Your task to perform on an android device: Is it going to rain today? Image 0: 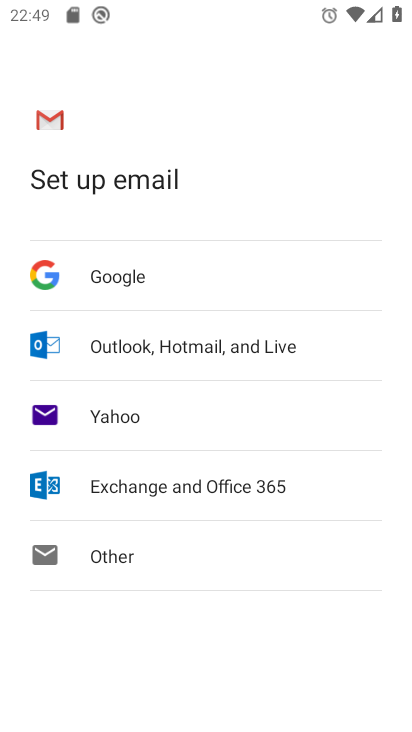
Step 0: press home button
Your task to perform on an android device: Is it going to rain today? Image 1: 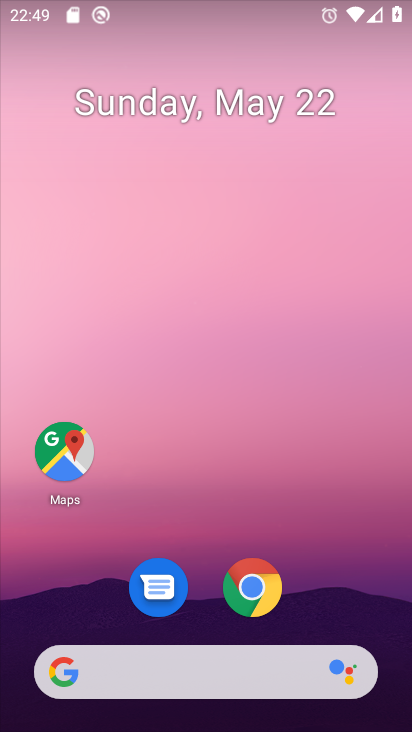
Step 1: click (208, 671)
Your task to perform on an android device: Is it going to rain today? Image 2: 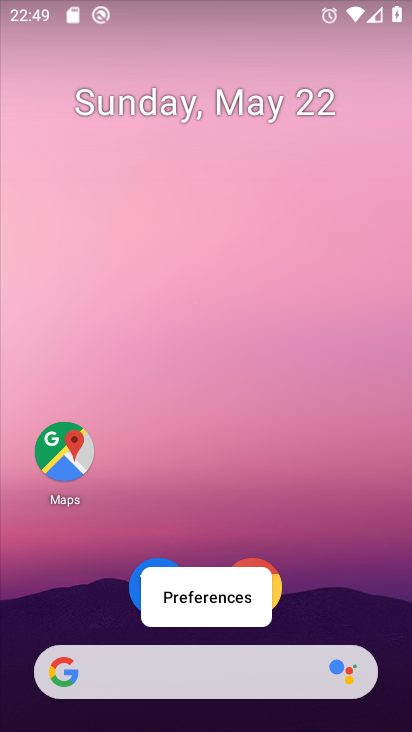
Step 2: click (182, 679)
Your task to perform on an android device: Is it going to rain today? Image 3: 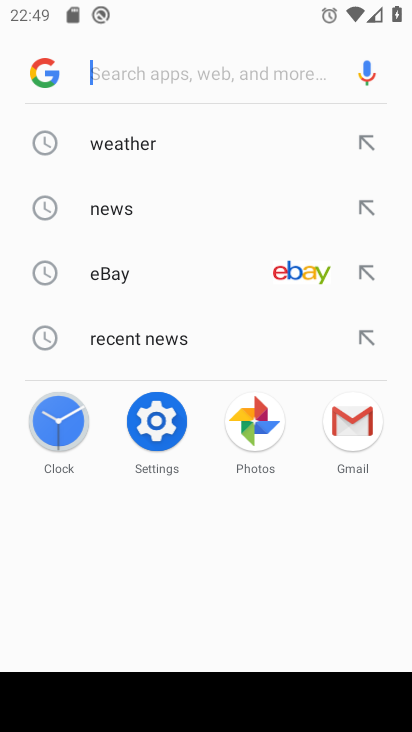
Step 3: click (106, 145)
Your task to perform on an android device: Is it going to rain today? Image 4: 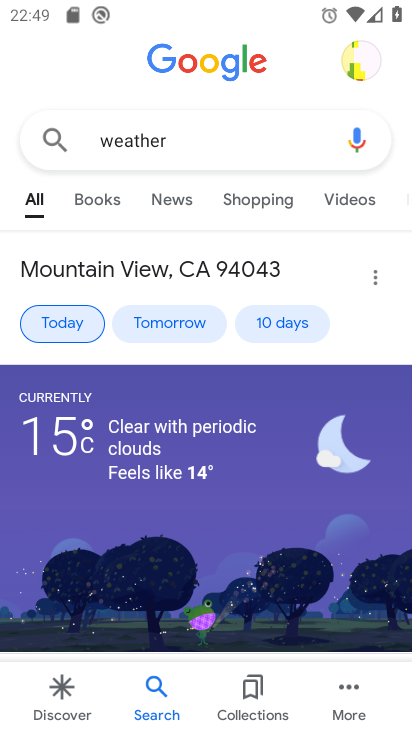
Step 4: click (60, 316)
Your task to perform on an android device: Is it going to rain today? Image 5: 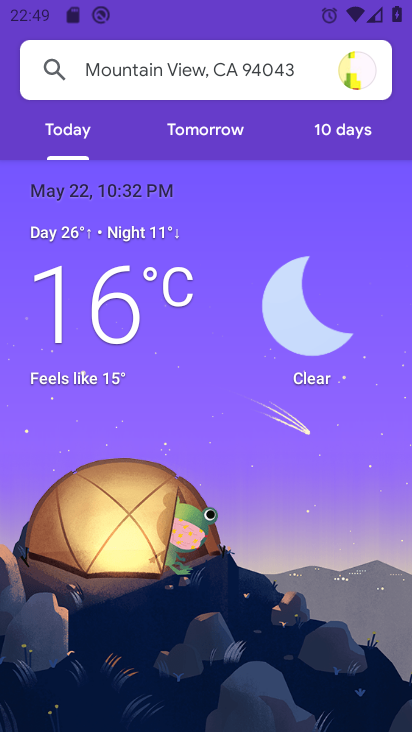
Step 5: task complete